Your task to perform on an android device: Open the calendar and show me this week's events? Image 0: 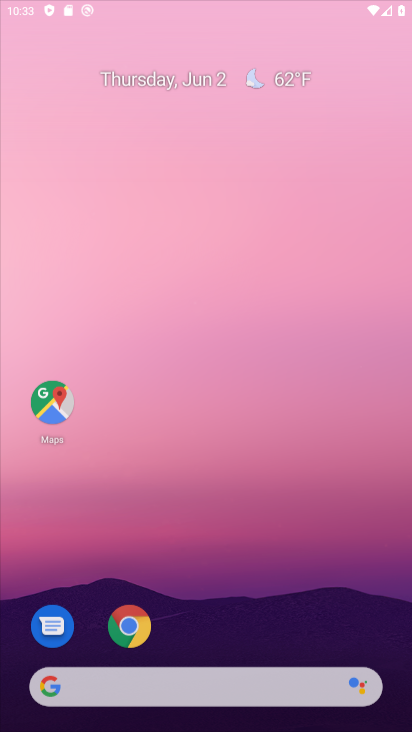
Step 0: press home button
Your task to perform on an android device: Open the calendar and show me this week's events? Image 1: 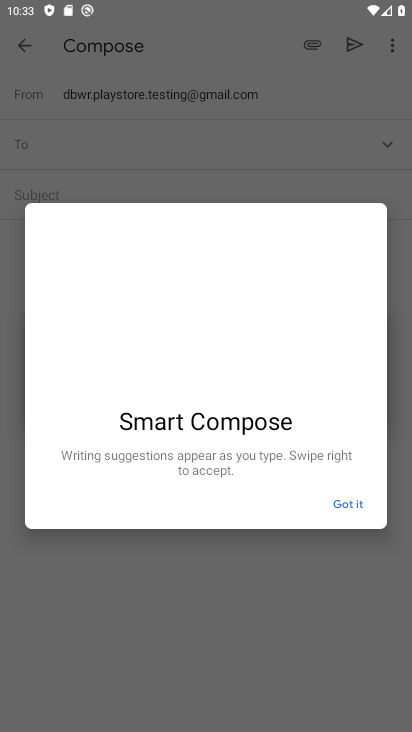
Step 1: drag from (145, 688) to (296, 165)
Your task to perform on an android device: Open the calendar and show me this week's events? Image 2: 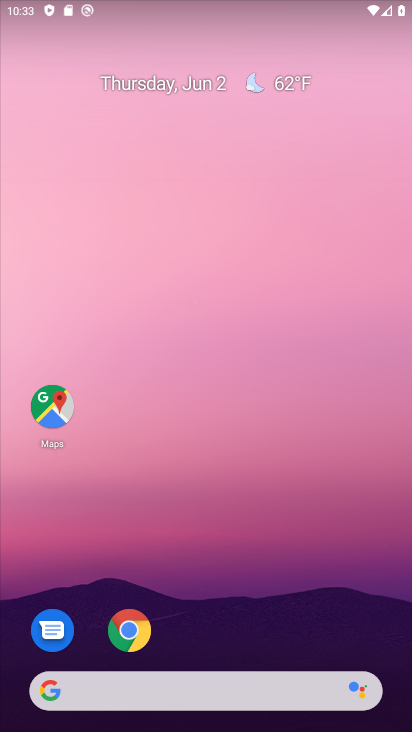
Step 2: drag from (187, 682) to (347, 130)
Your task to perform on an android device: Open the calendar and show me this week's events? Image 3: 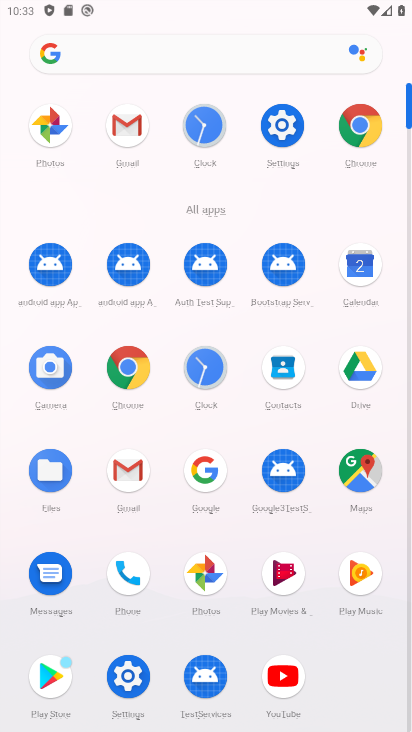
Step 3: click (355, 265)
Your task to perform on an android device: Open the calendar and show me this week's events? Image 4: 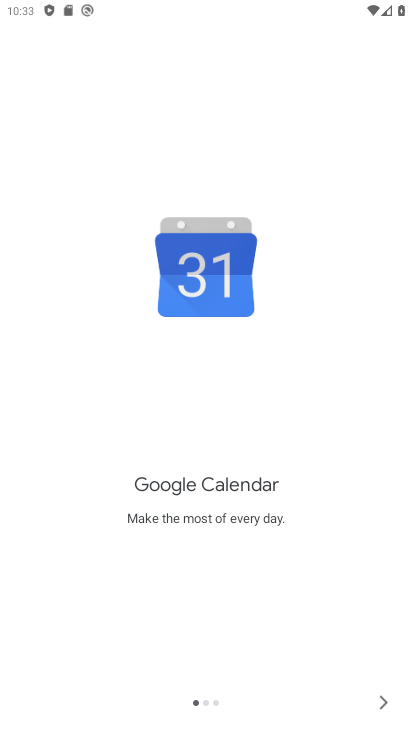
Step 4: click (381, 689)
Your task to perform on an android device: Open the calendar and show me this week's events? Image 5: 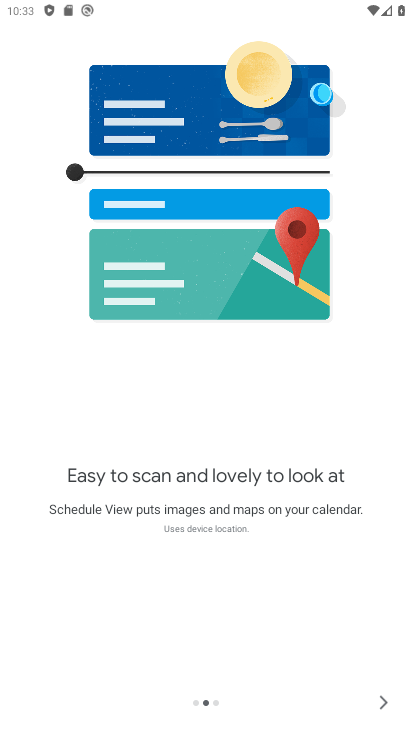
Step 5: click (372, 692)
Your task to perform on an android device: Open the calendar and show me this week's events? Image 6: 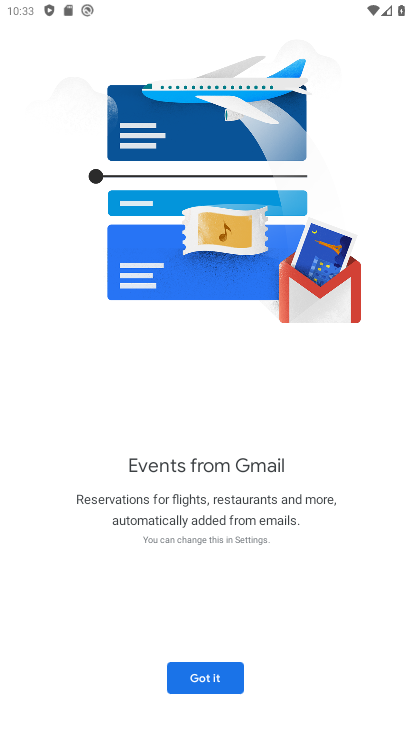
Step 6: click (188, 672)
Your task to perform on an android device: Open the calendar and show me this week's events? Image 7: 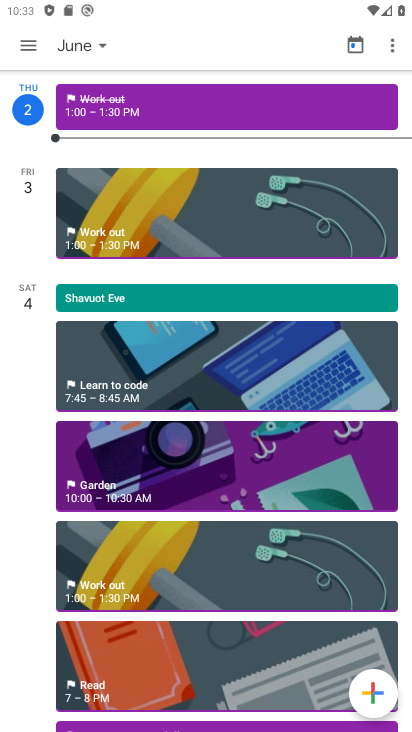
Step 7: click (85, 54)
Your task to perform on an android device: Open the calendar and show me this week's events? Image 8: 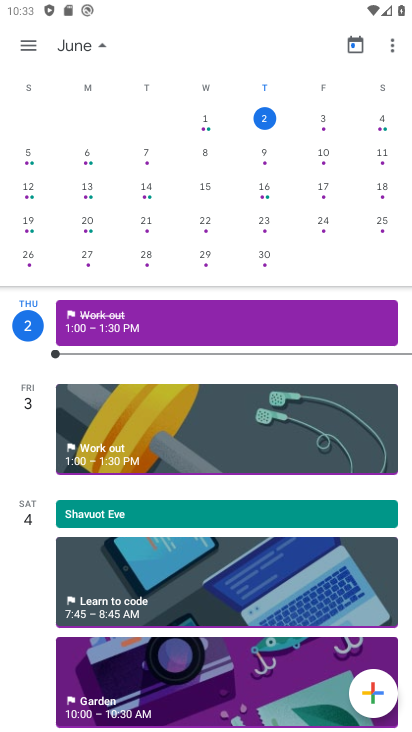
Step 8: click (24, 38)
Your task to perform on an android device: Open the calendar and show me this week's events? Image 9: 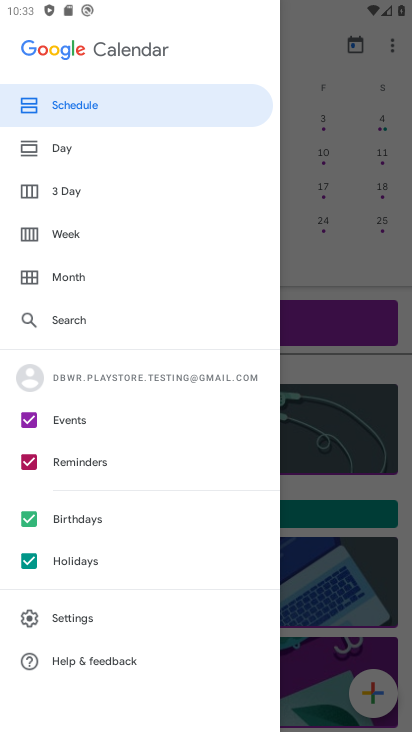
Step 9: click (64, 231)
Your task to perform on an android device: Open the calendar and show me this week's events? Image 10: 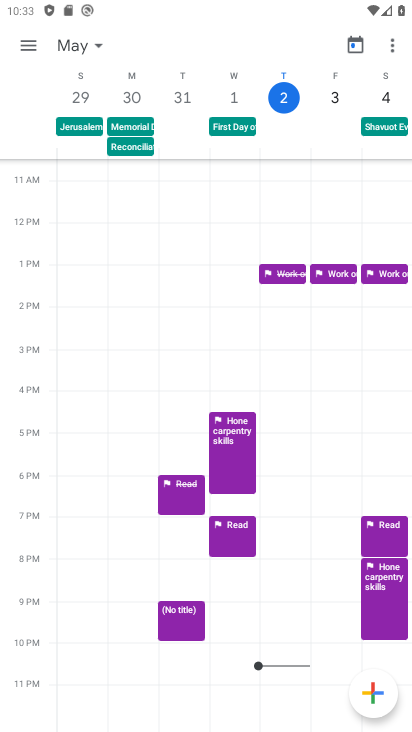
Step 10: click (21, 46)
Your task to perform on an android device: Open the calendar and show me this week's events? Image 11: 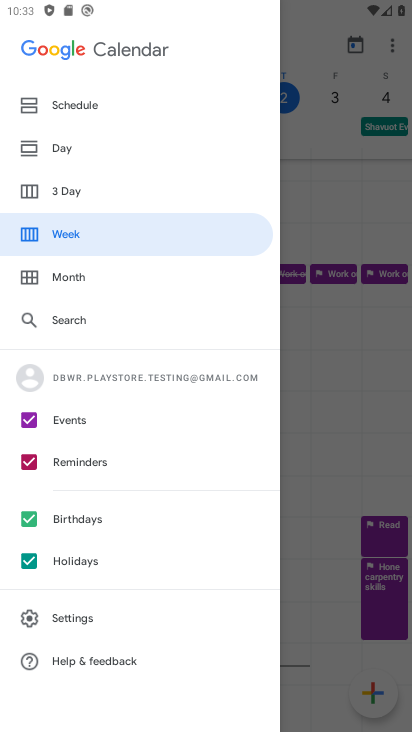
Step 11: click (63, 105)
Your task to perform on an android device: Open the calendar and show me this week's events? Image 12: 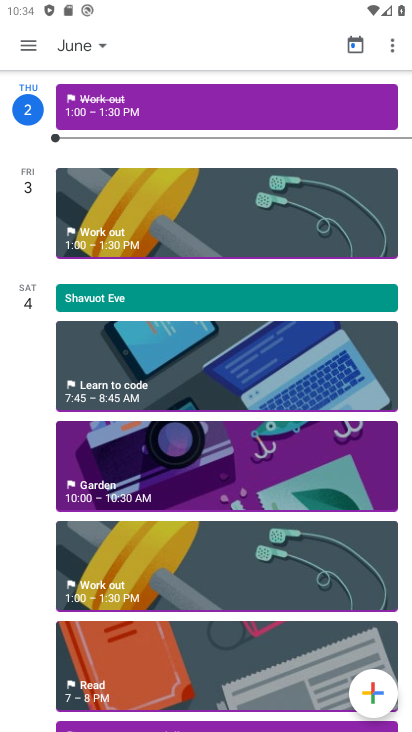
Step 12: click (208, 117)
Your task to perform on an android device: Open the calendar and show me this week's events? Image 13: 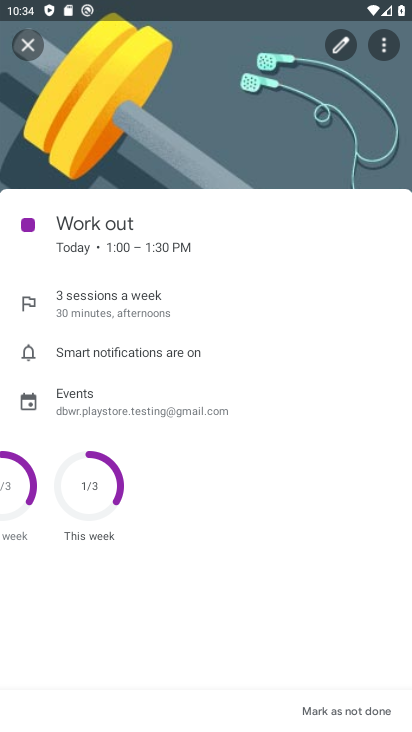
Step 13: task complete